Your task to perform on an android device: Show the shopping cart on amazon. Search for "bose soundlink" on amazon, select the first entry, add it to the cart, then select checkout. Image 0: 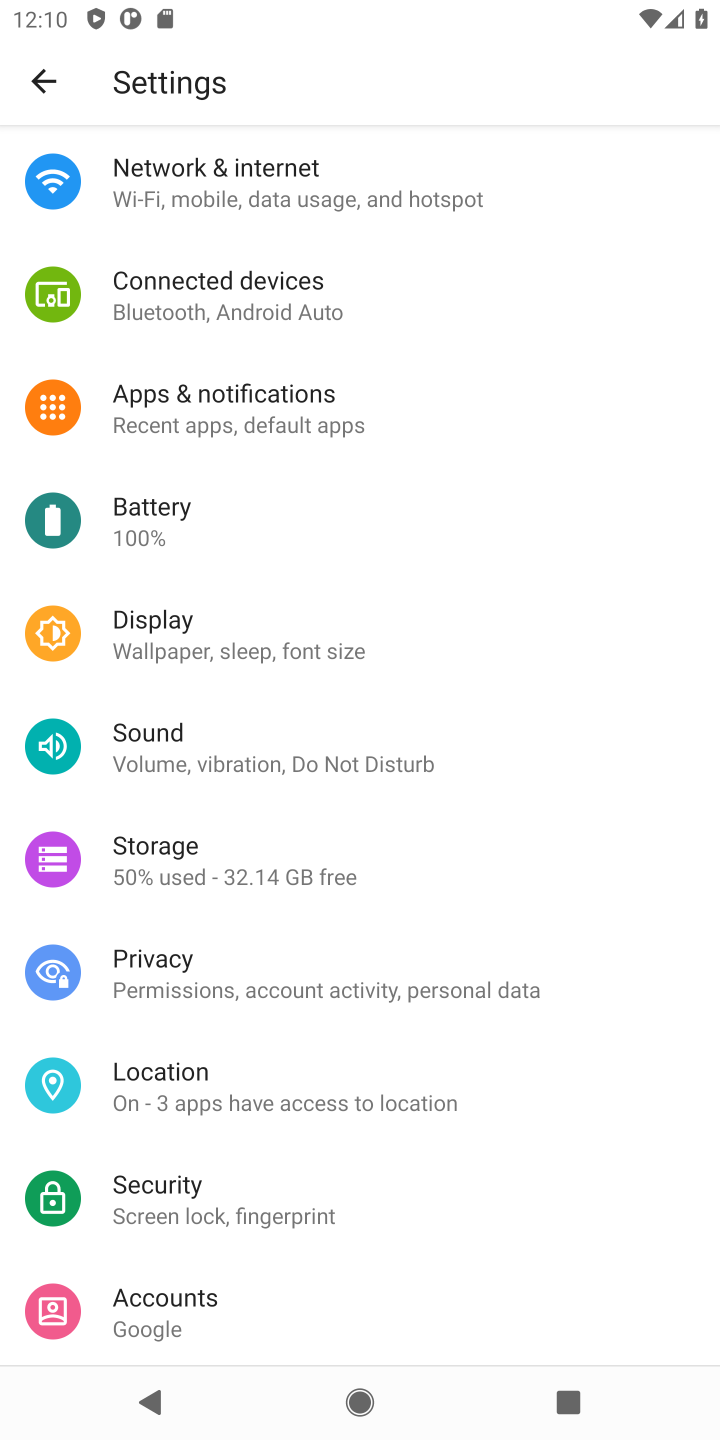
Step 0: press home button
Your task to perform on an android device: Show the shopping cart on amazon. Search for "bose soundlink" on amazon, select the first entry, add it to the cart, then select checkout. Image 1: 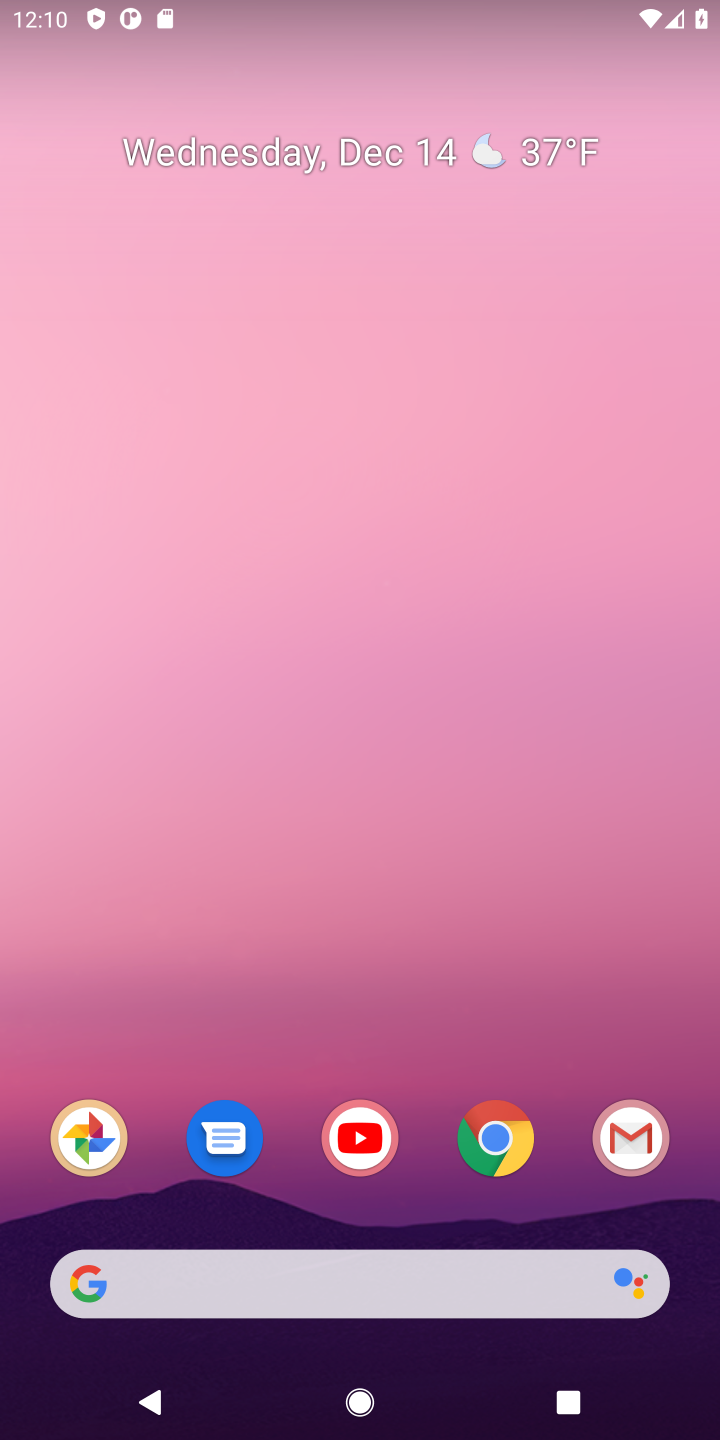
Step 1: click (491, 1133)
Your task to perform on an android device: Show the shopping cart on amazon. Search for "bose soundlink" on amazon, select the first entry, add it to the cart, then select checkout. Image 2: 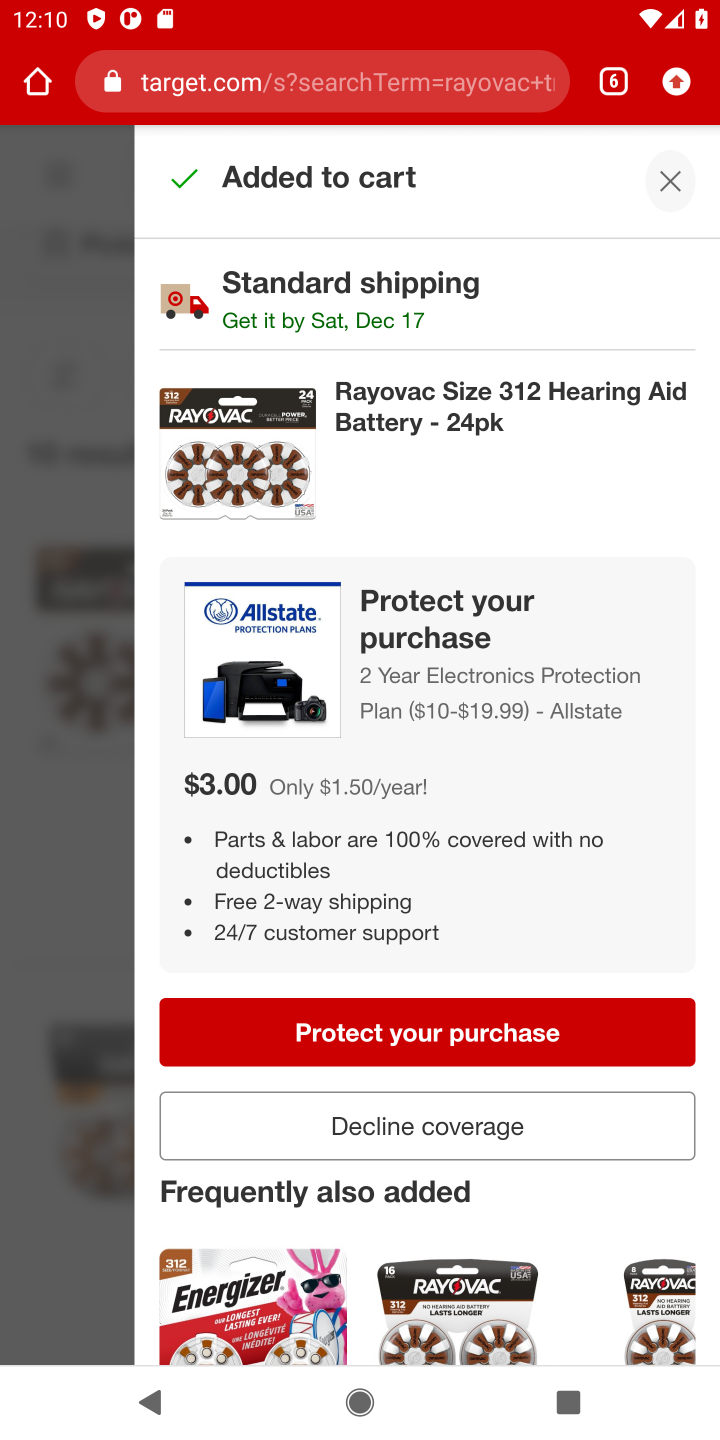
Step 2: click (600, 98)
Your task to perform on an android device: Show the shopping cart on amazon. Search for "bose soundlink" on amazon, select the first entry, add it to the cart, then select checkout. Image 3: 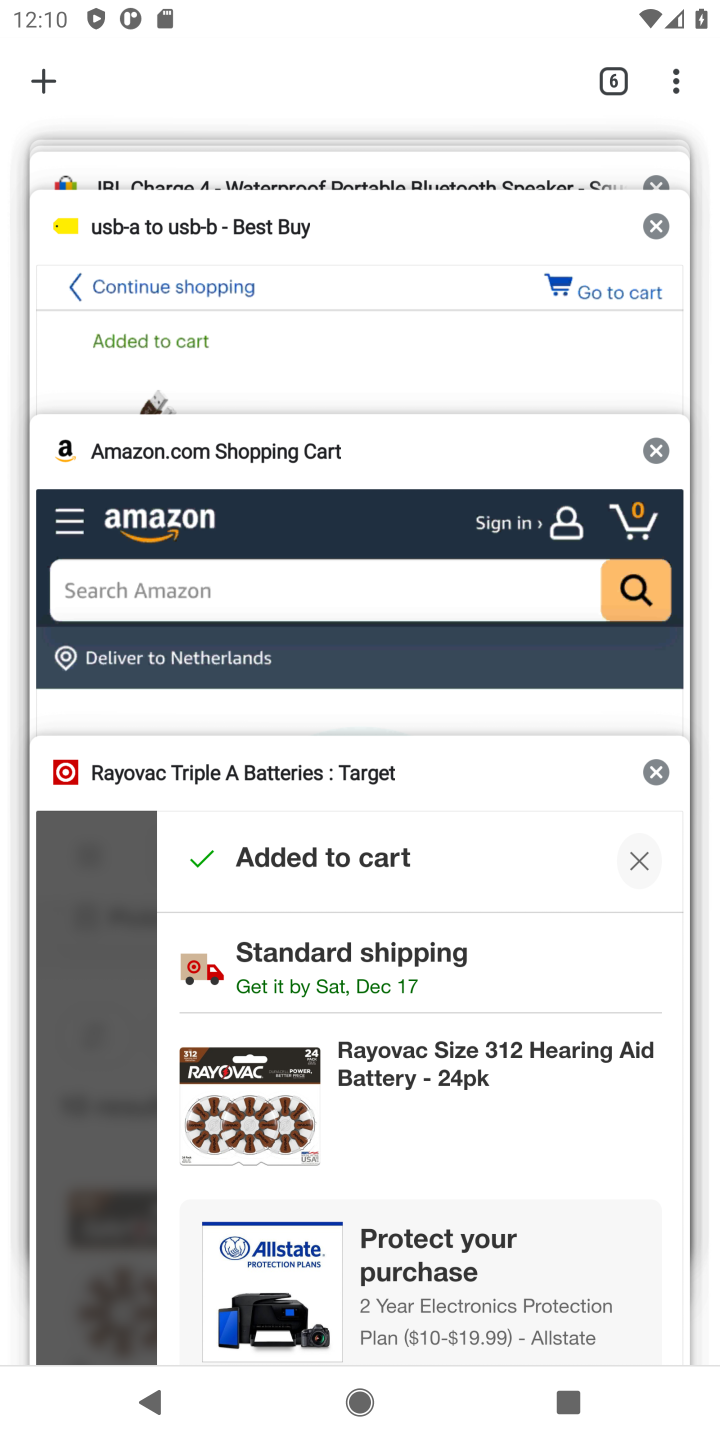
Step 3: click (340, 524)
Your task to perform on an android device: Show the shopping cart on amazon. Search for "bose soundlink" on amazon, select the first entry, add it to the cart, then select checkout. Image 4: 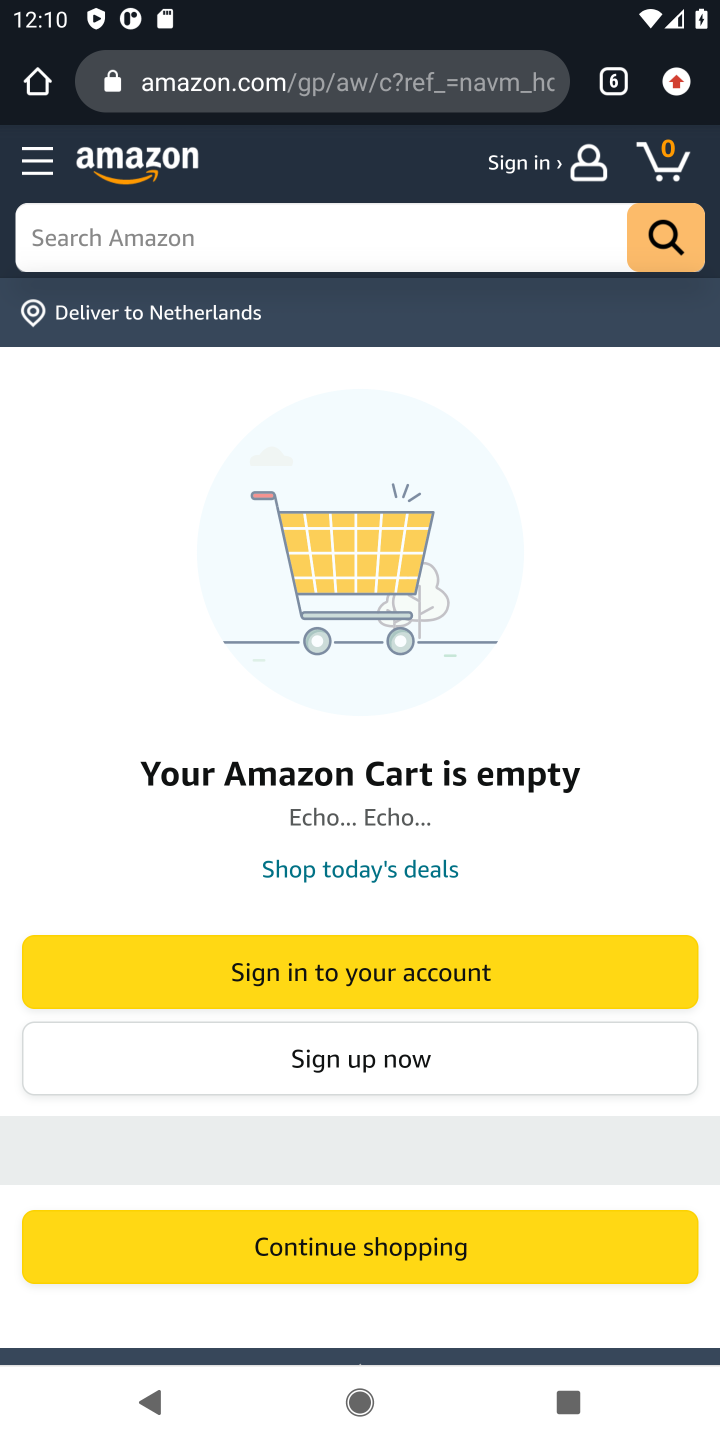
Step 4: click (199, 253)
Your task to perform on an android device: Show the shopping cart on amazon. Search for "bose soundlink" on amazon, select the first entry, add it to the cart, then select checkout. Image 5: 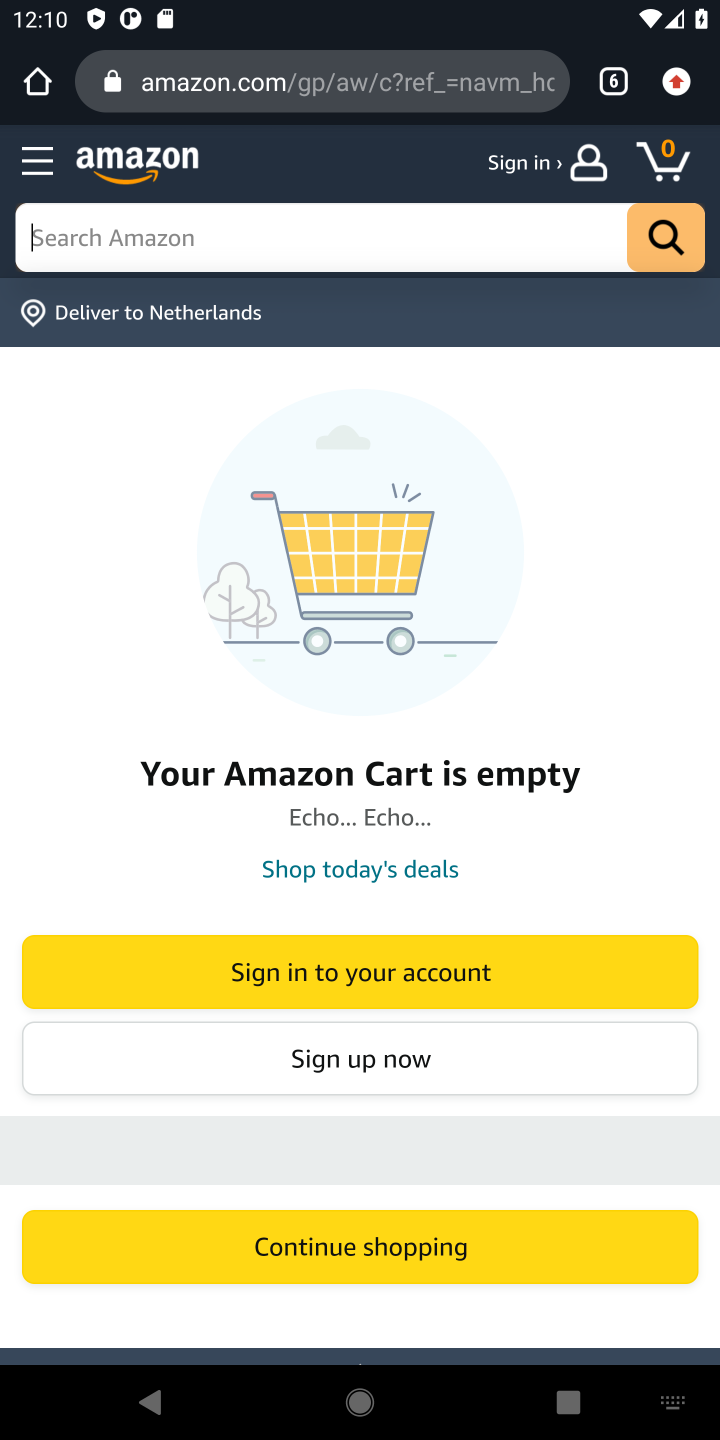
Step 5: type "bose soundlink"
Your task to perform on an android device: Show the shopping cart on amazon. Search for "bose soundlink" on amazon, select the first entry, add it to the cart, then select checkout. Image 6: 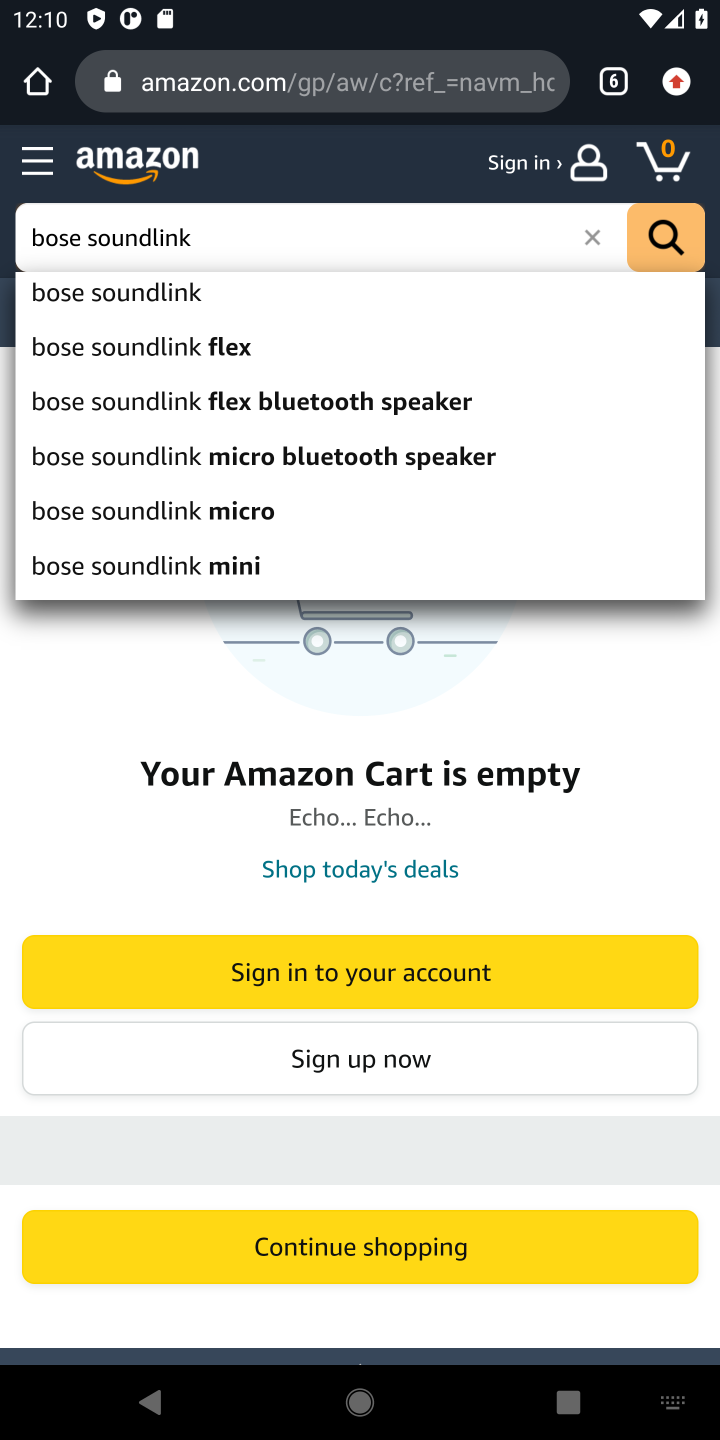
Step 6: click (116, 302)
Your task to perform on an android device: Show the shopping cart on amazon. Search for "bose soundlink" on amazon, select the first entry, add it to the cart, then select checkout. Image 7: 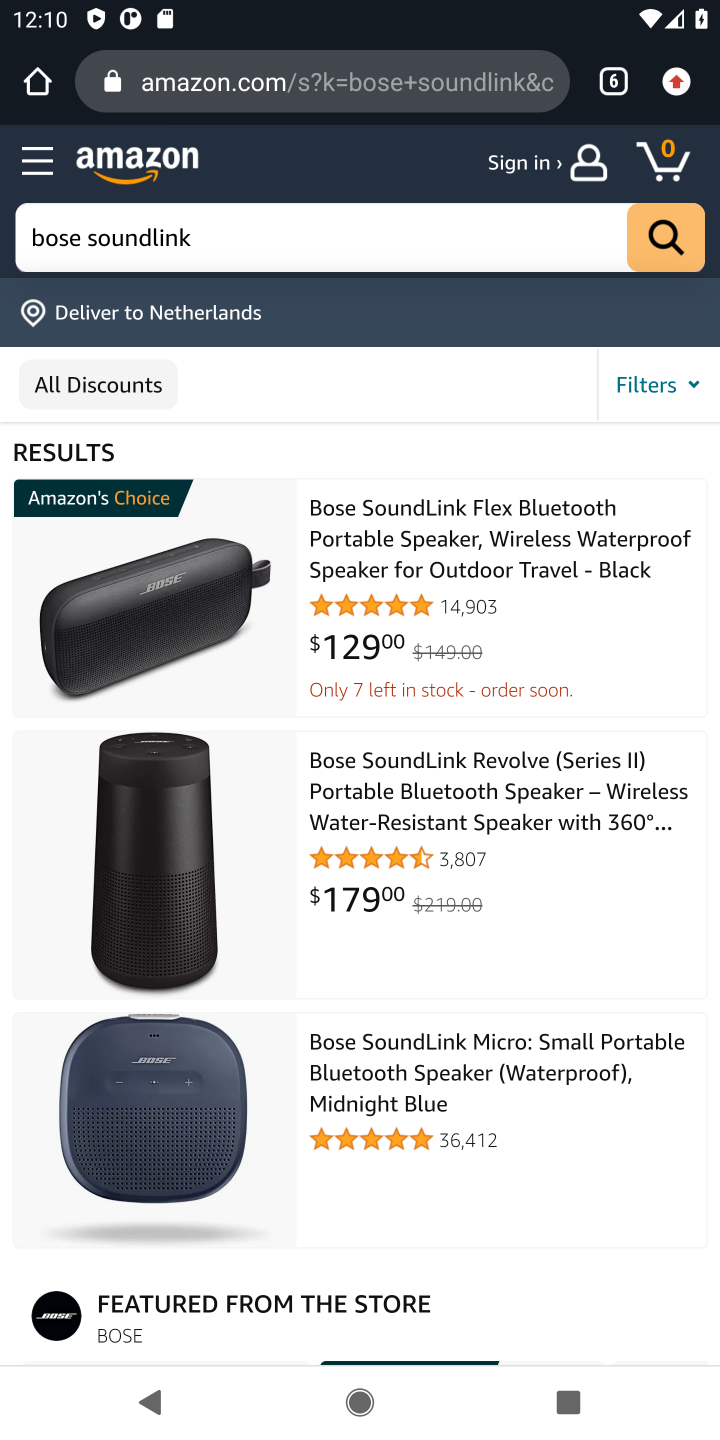
Step 7: click (426, 509)
Your task to perform on an android device: Show the shopping cart on amazon. Search for "bose soundlink" on amazon, select the first entry, add it to the cart, then select checkout. Image 8: 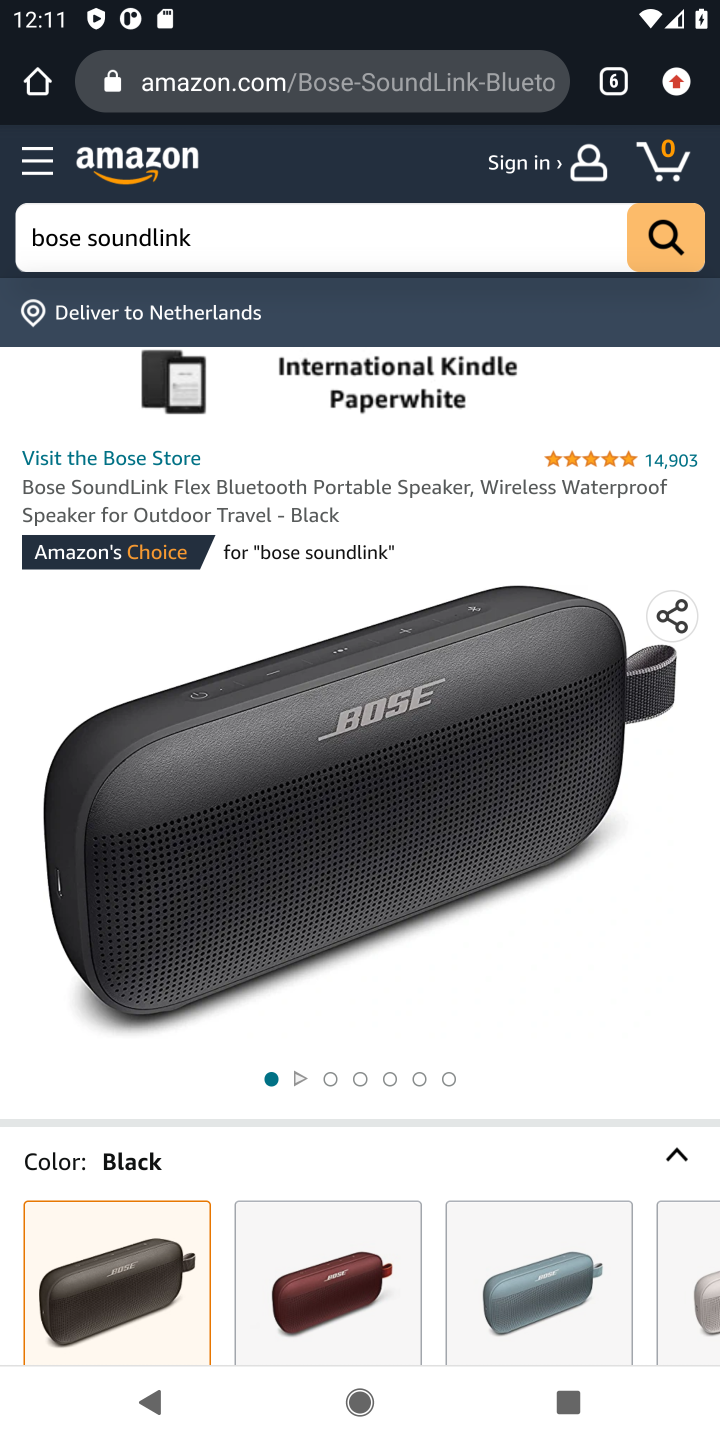
Step 8: drag from (460, 1110) to (581, 300)
Your task to perform on an android device: Show the shopping cart on amazon. Search for "bose soundlink" on amazon, select the first entry, add it to the cart, then select checkout. Image 9: 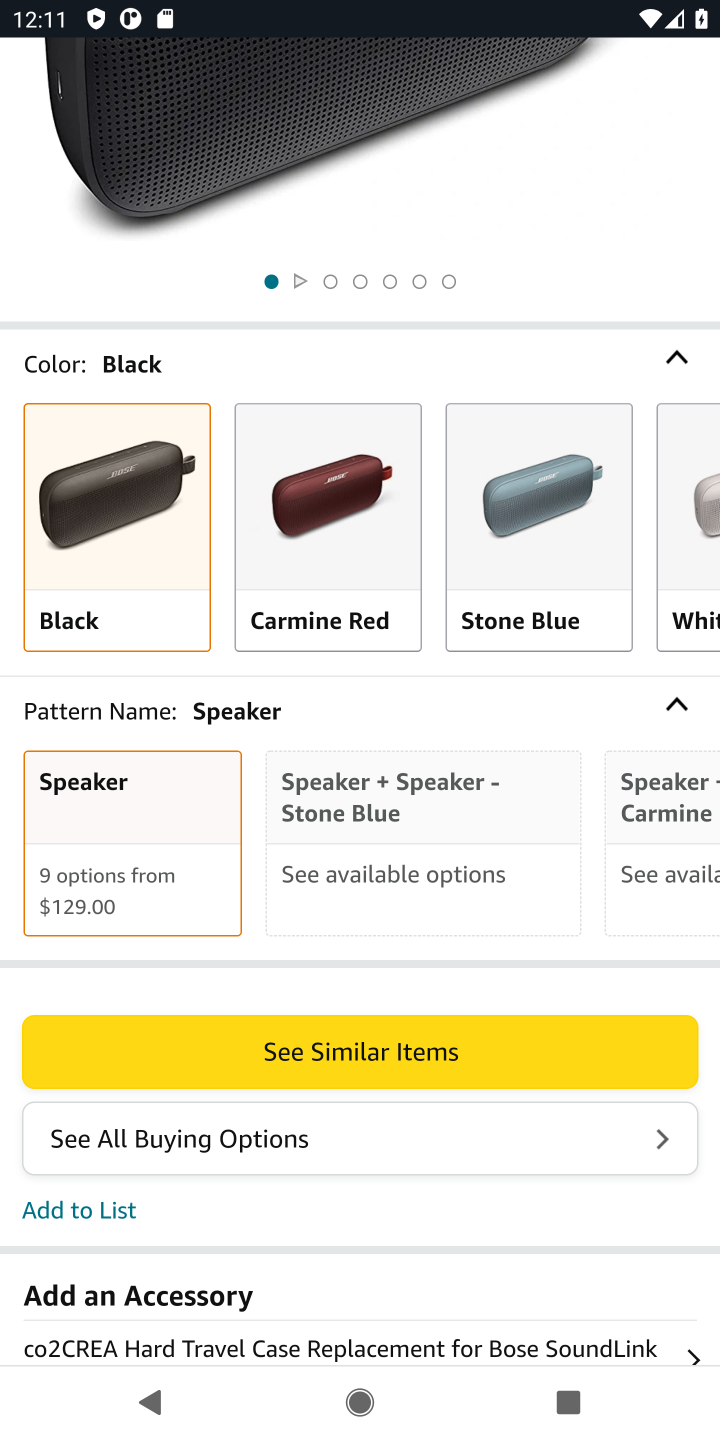
Step 9: click (307, 1054)
Your task to perform on an android device: Show the shopping cart on amazon. Search for "bose soundlink" on amazon, select the first entry, add it to the cart, then select checkout. Image 10: 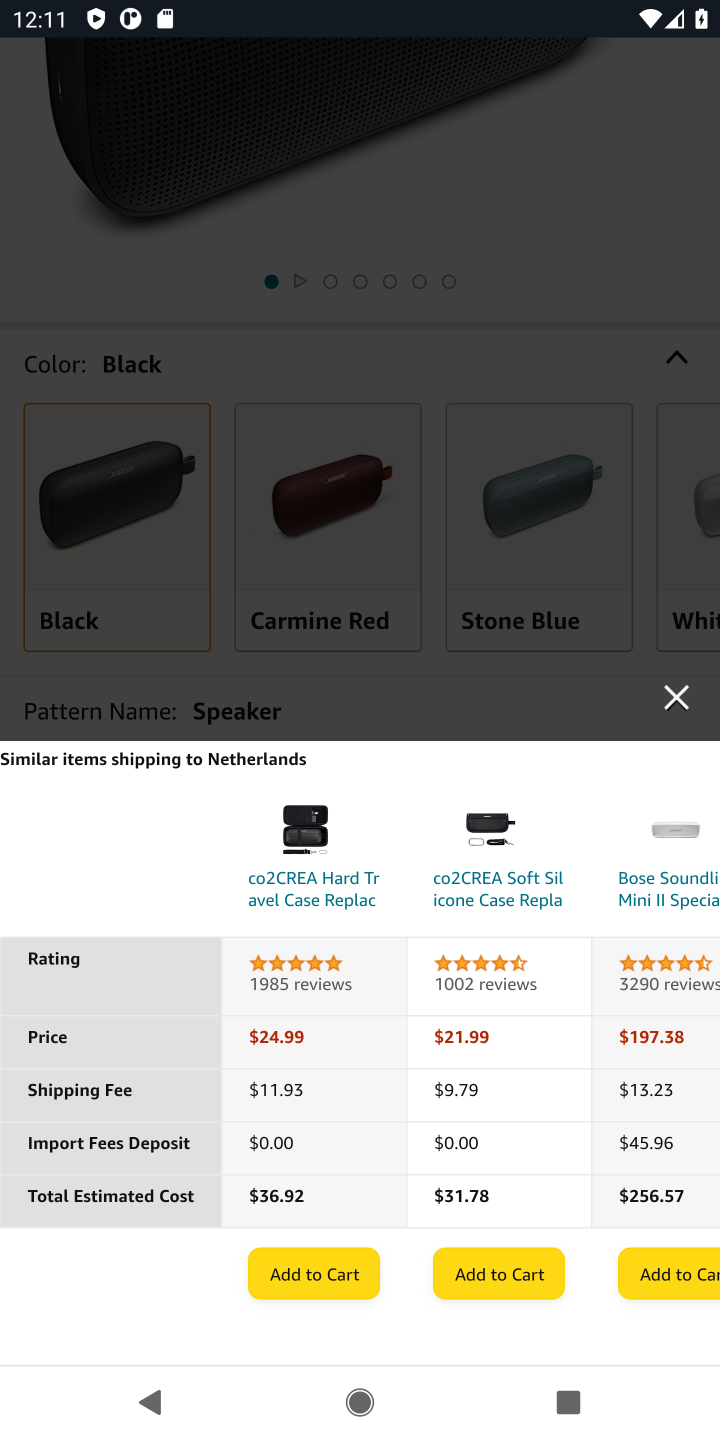
Step 10: click (663, 1271)
Your task to perform on an android device: Show the shopping cart on amazon. Search for "bose soundlink" on amazon, select the first entry, add it to the cart, then select checkout. Image 11: 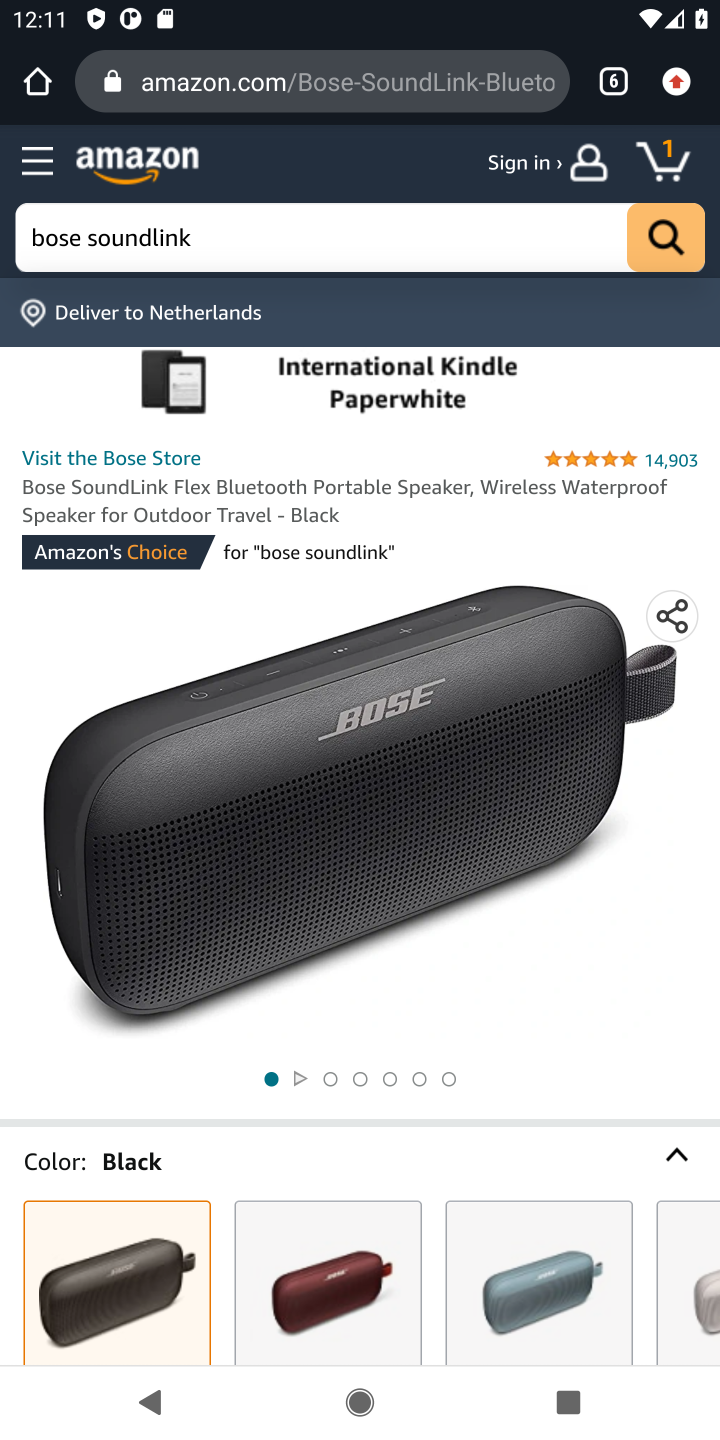
Step 11: task complete